Your task to perform on an android device: Open the calendar app, open the side menu, and click the "Day" option Image 0: 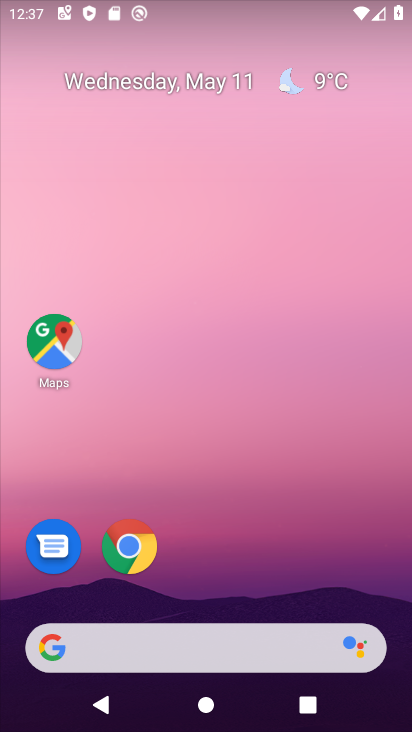
Step 0: drag from (227, 631) to (306, 126)
Your task to perform on an android device: Open the calendar app, open the side menu, and click the "Day" option Image 1: 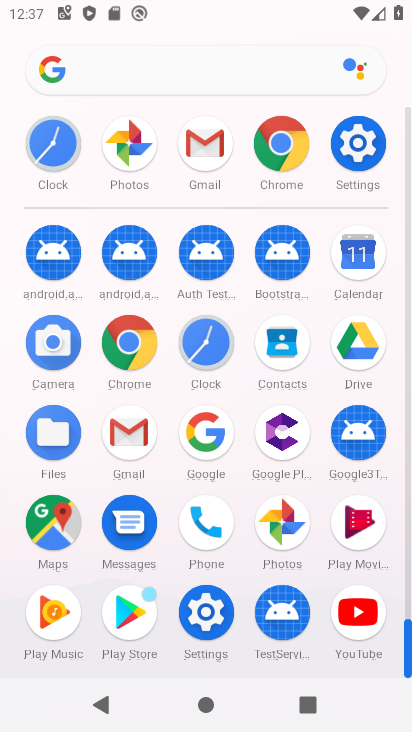
Step 1: click (370, 261)
Your task to perform on an android device: Open the calendar app, open the side menu, and click the "Day" option Image 2: 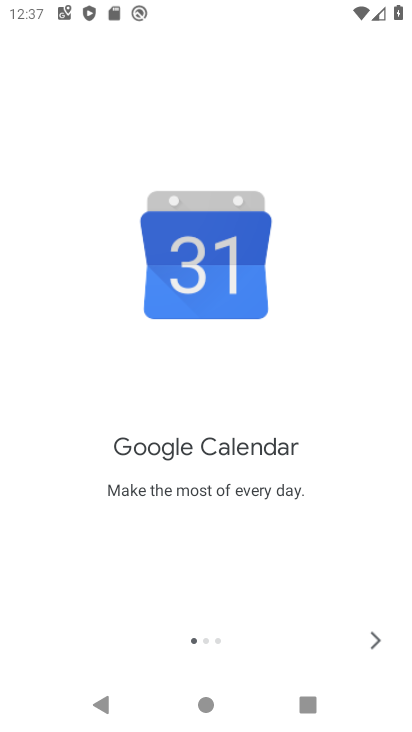
Step 2: click (377, 635)
Your task to perform on an android device: Open the calendar app, open the side menu, and click the "Day" option Image 3: 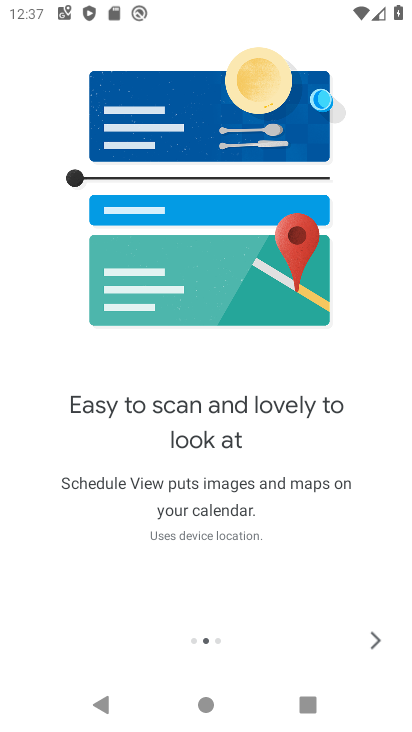
Step 3: click (377, 635)
Your task to perform on an android device: Open the calendar app, open the side menu, and click the "Day" option Image 4: 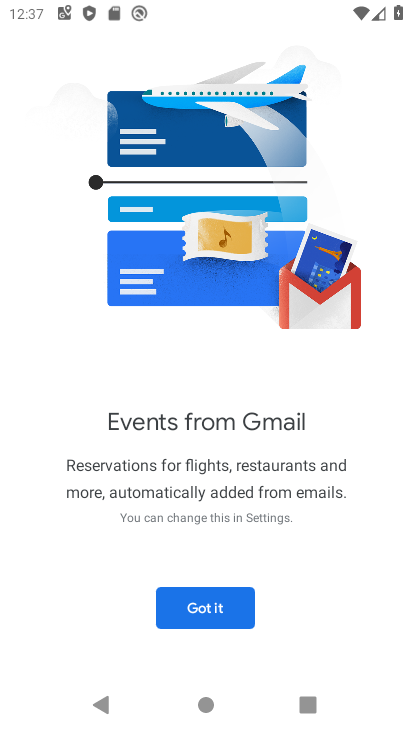
Step 4: click (188, 611)
Your task to perform on an android device: Open the calendar app, open the side menu, and click the "Day" option Image 5: 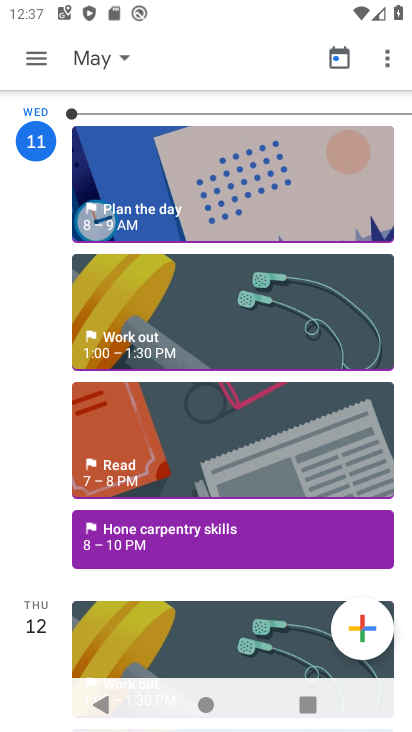
Step 5: click (40, 53)
Your task to perform on an android device: Open the calendar app, open the side menu, and click the "Day" option Image 6: 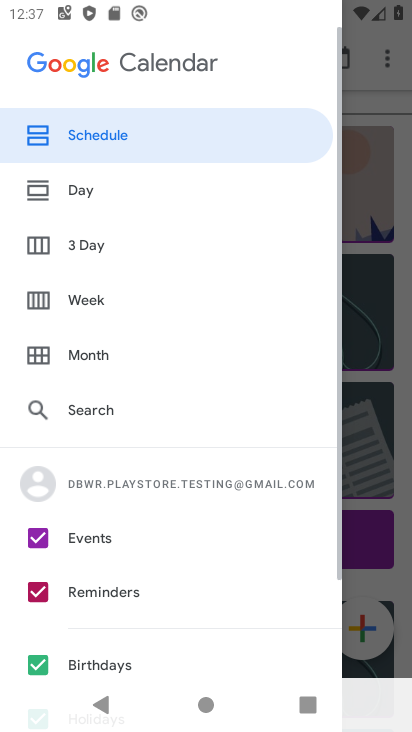
Step 6: click (106, 194)
Your task to perform on an android device: Open the calendar app, open the side menu, and click the "Day" option Image 7: 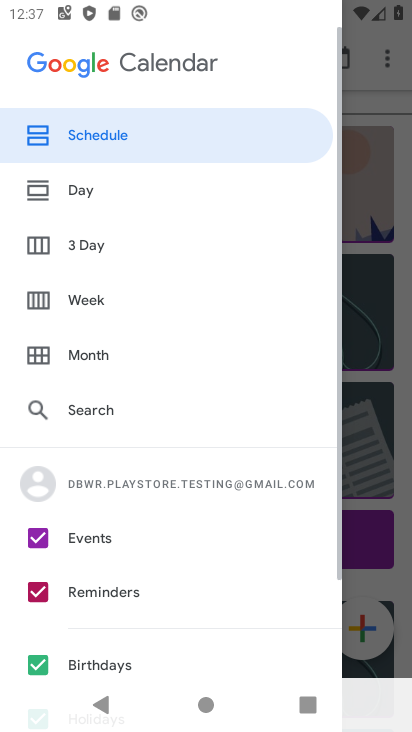
Step 7: click (106, 194)
Your task to perform on an android device: Open the calendar app, open the side menu, and click the "Day" option Image 8: 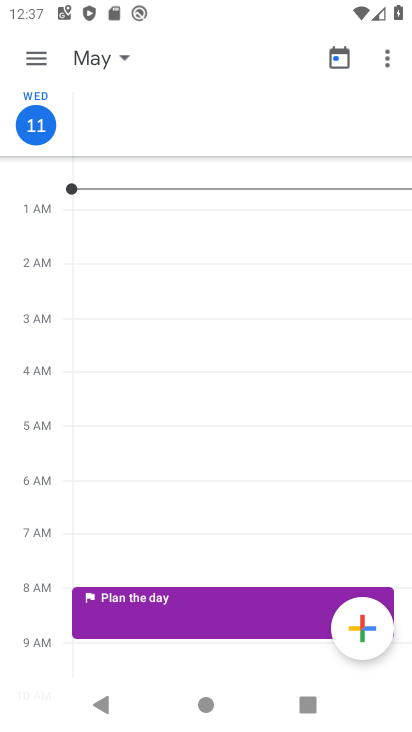
Step 8: task complete